Your task to perform on an android device: What is the recent news? Image 0: 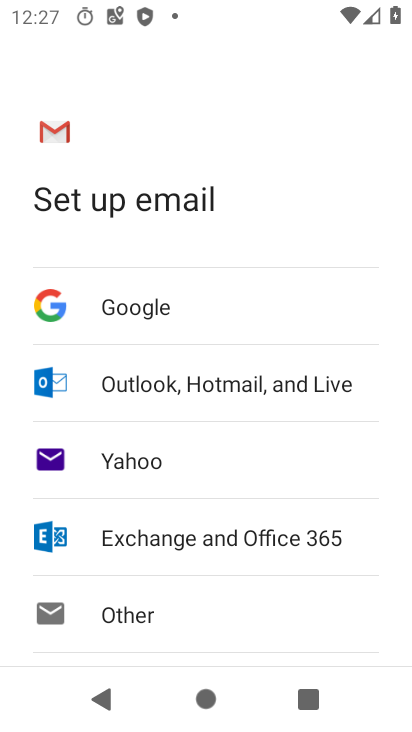
Step 0: press home button
Your task to perform on an android device: What is the recent news? Image 1: 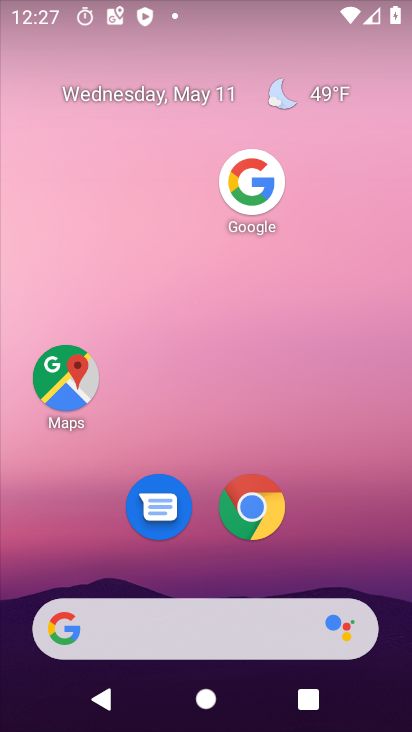
Step 1: click (252, 182)
Your task to perform on an android device: What is the recent news? Image 2: 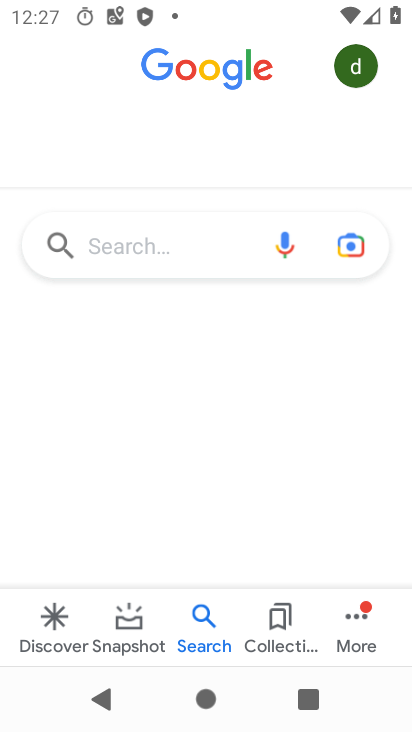
Step 2: click (178, 240)
Your task to perform on an android device: What is the recent news? Image 3: 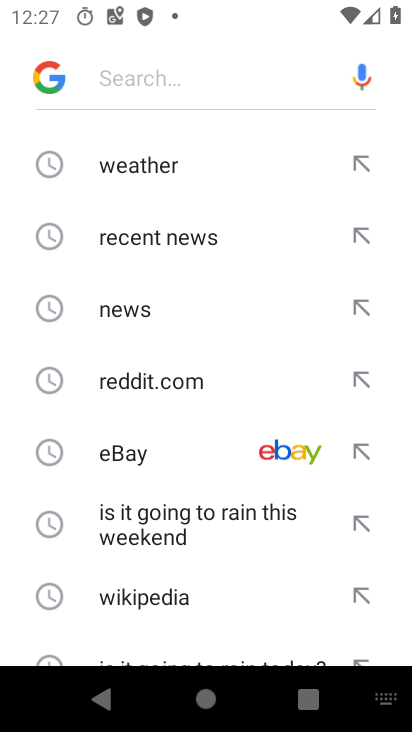
Step 3: click (158, 234)
Your task to perform on an android device: What is the recent news? Image 4: 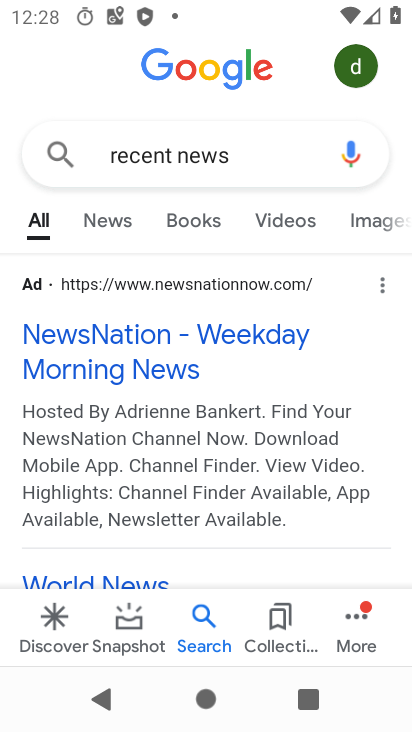
Step 4: task complete